Your task to perform on an android device: turn on the 12-hour format for clock Image 0: 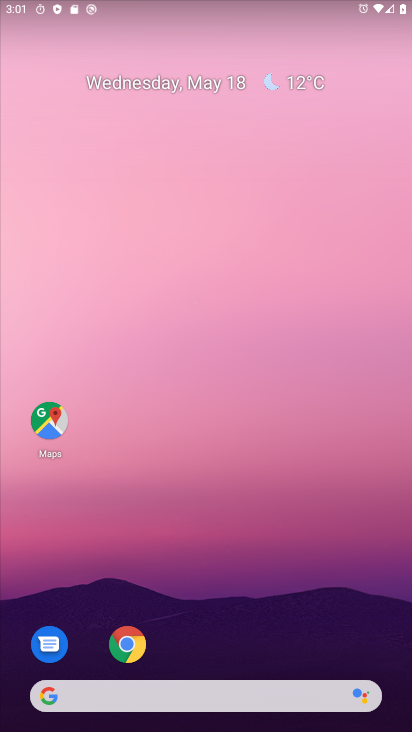
Step 0: drag from (410, 535) to (403, 262)
Your task to perform on an android device: turn on the 12-hour format for clock Image 1: 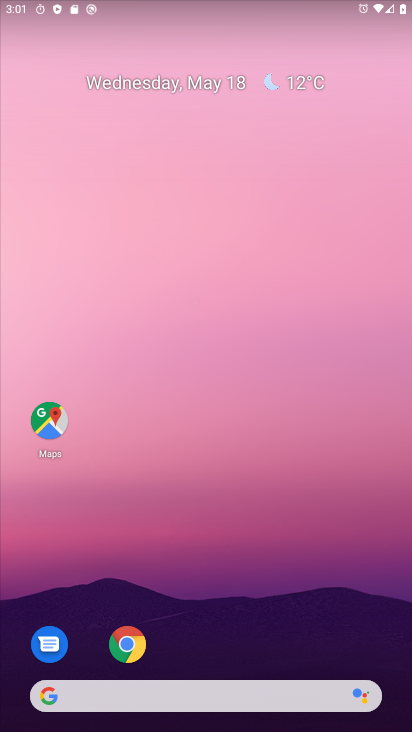
Step 1: drag from (381, 281) to (371, 154)
Your task to perform on an android device: turn on the 12-hour format for clock Image 2: 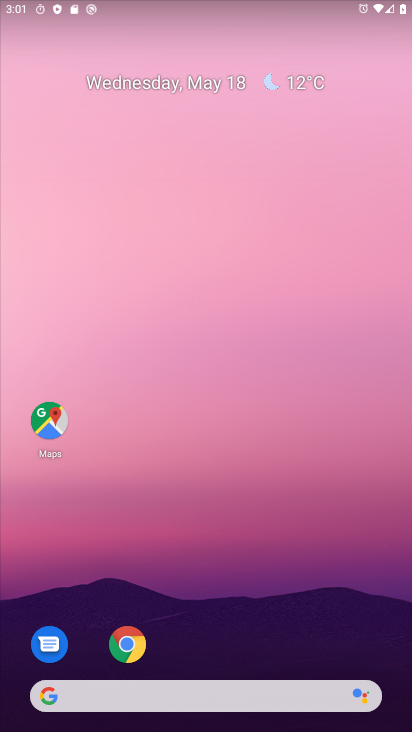
Step 2: drag from (388, 690) to (296, 132)
Your task to perform on an android device: turn on the 12-hour format for clock Image 3: 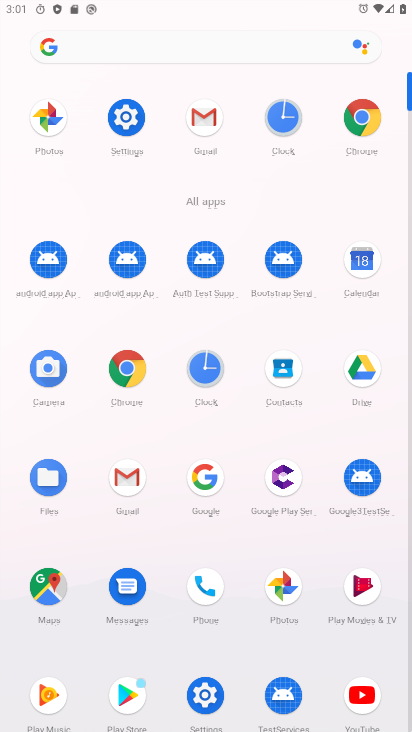
Step 3: click (278, 114)
Your task to perform on an android device: turn on the 12-hour format for clock Image 4: 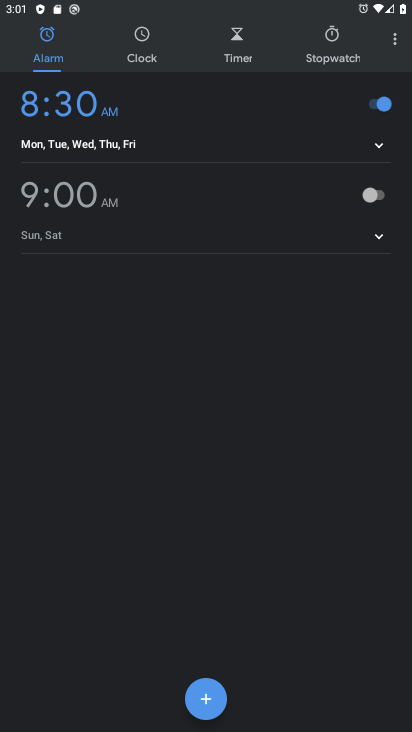
Step 4: click (392, 35)
Your task to perform on an android device: turn on the 12-hour format for clock Image 5: 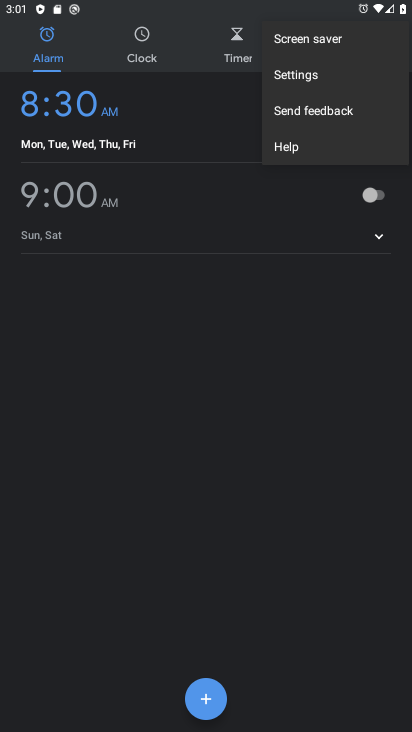
Step 5: click (304, 71)
Your task to perform on an android device: turn on the 12-hour format for clock Image 6: 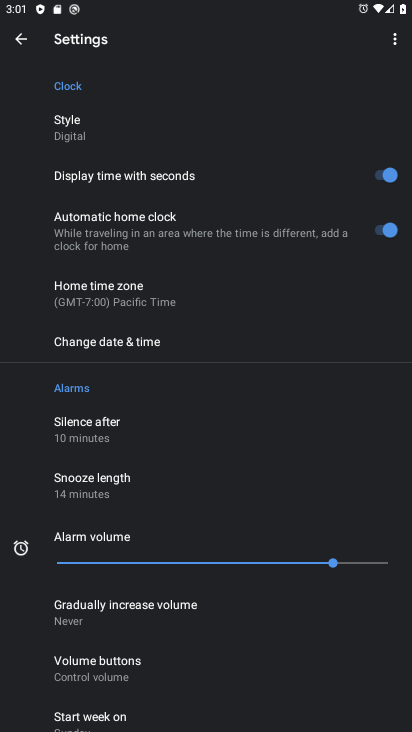
Step 6: click (128, 338)
Your task to perform on an android device: turn on the 12-hour format for clock Image 7: 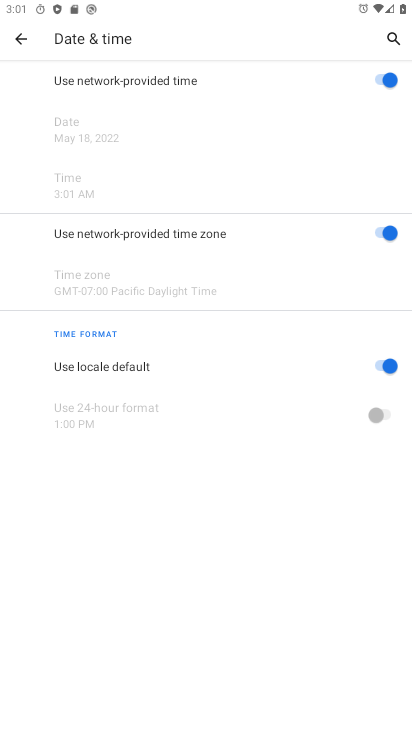
Step 7: task complete